Your task to perform on an android device: turn off sleep mode Image 0: 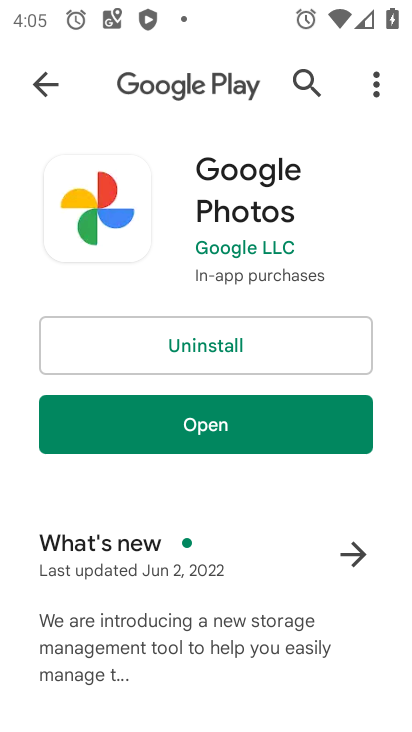
Step 0: press home button
Your task to perform on an android device: turn off sleep mode Image 1: 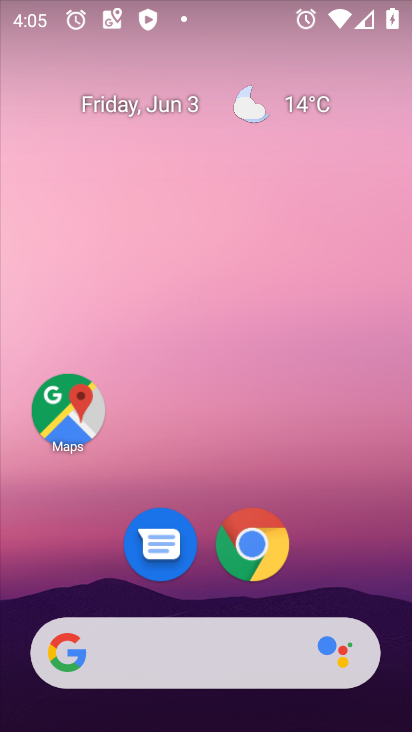
Step 1: drag from (400, 659) to (298, 84)
Your task to perform on an android device: turn off sleep mode Image 2: 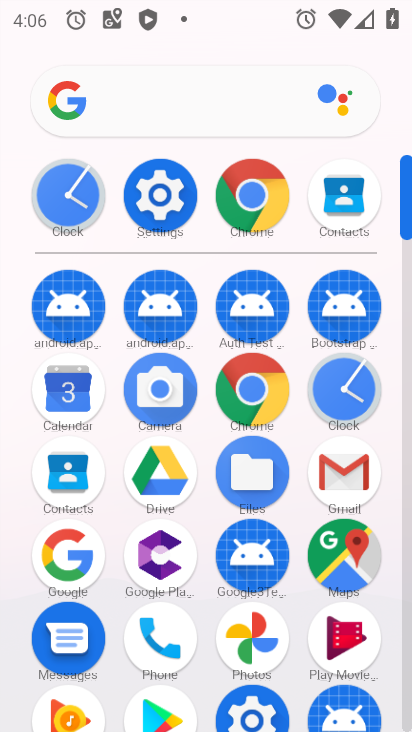
Step 2: click (407, 706)
Your task to perform on an android device: turn off sleep mode Image 3: 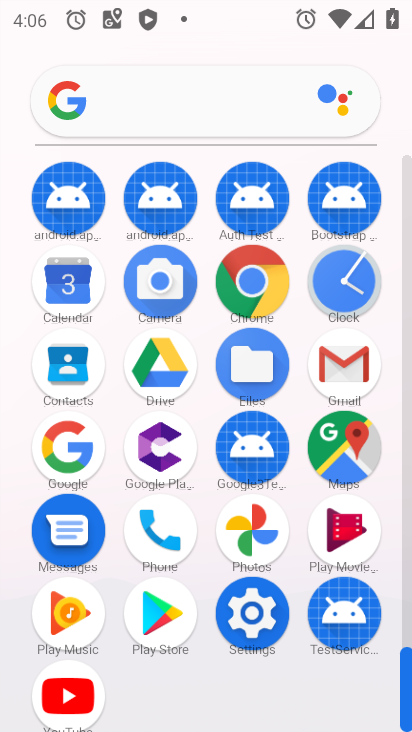
Step 3: click (253, 612)
Your task to perform on an android device: turn off sleep mode Image 4: 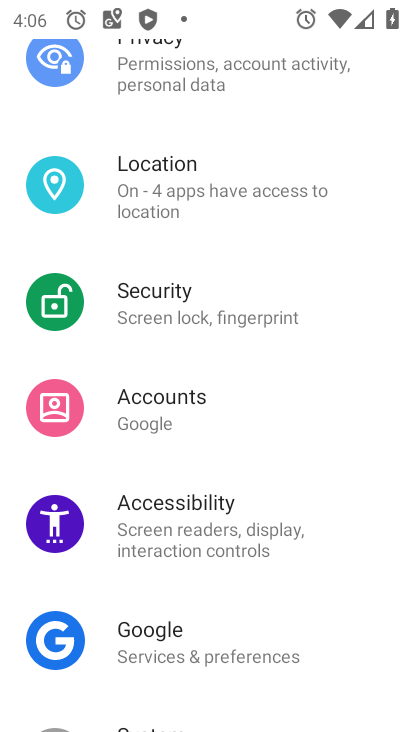
Step 4: drag from (317, 171) to (330, 457)
Your task to perform on an android device: turn off sleep mode Image 5: 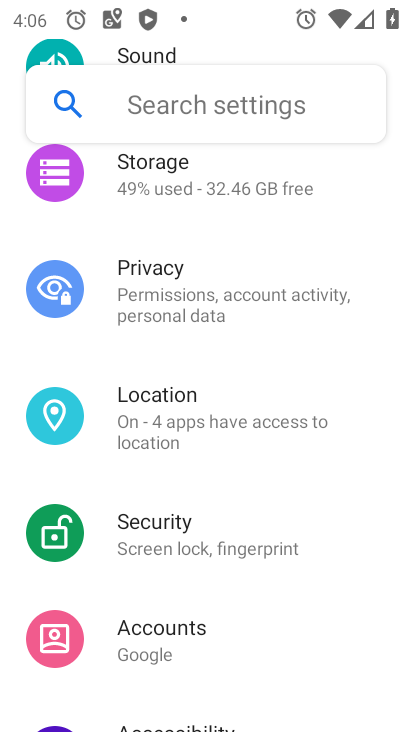
Step 5: drag from (346, 217) to (362, 477)
Your task to perform on an android device: turn off sleep mode Image 6: 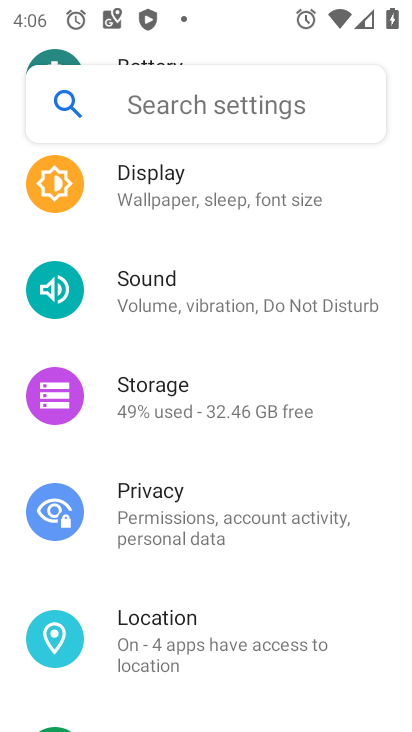
Step 6: click (197, 189)
Your task to perform on an android device: turn off sleep mode Image 7: 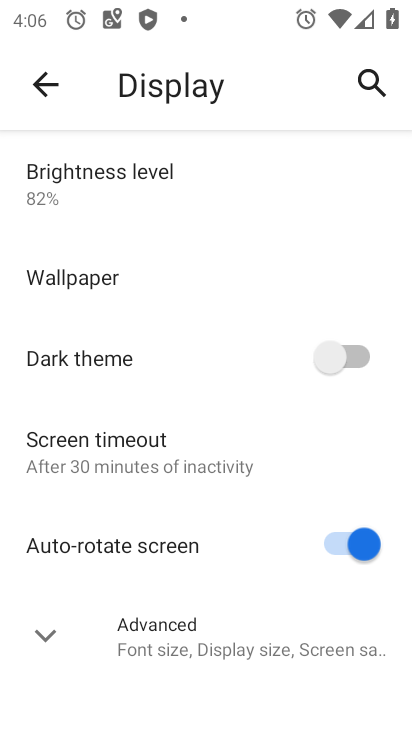
Step 7: click (48, 633)
Your task to perform on an android device: turn off sleep mode Image 8: 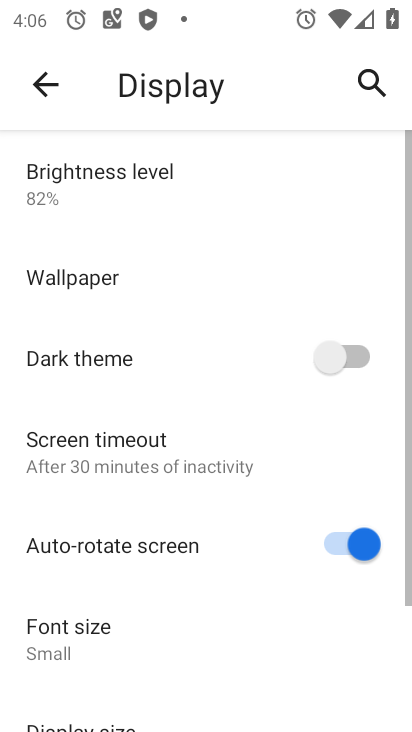
Step 8: task complete